Your task to perform on an android device: Open the Play Movies app and select the watchlist tab. Image 0: 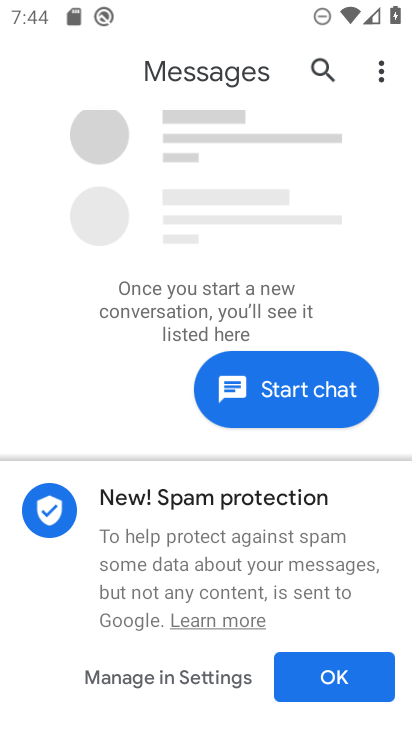
Step 0: press home button
Your task to perform on an android device: Open the Play Movies app and select the watchlist tab. Image 1: 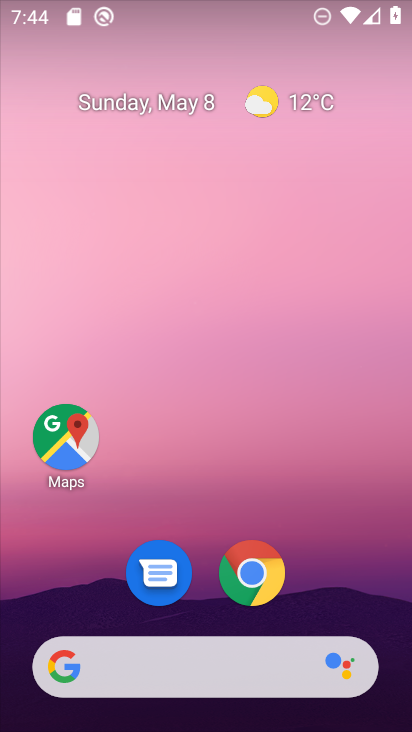
Step 1: drag from (367, 598) to (412, 505)
Your task to perform on an android device: Open the Play Movies app and select the watchlist tab. Image 2: 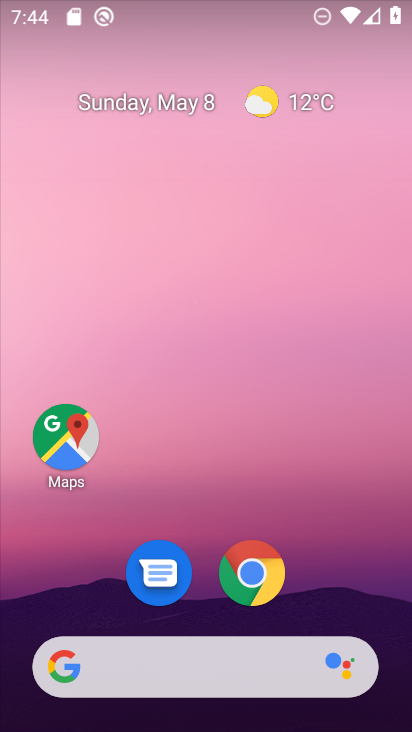
Step 2: drag from (409, 298) to (405, 44)
Your task to perform on an android device: Open the Play Movies app and select the watchlist tab. Image 3: 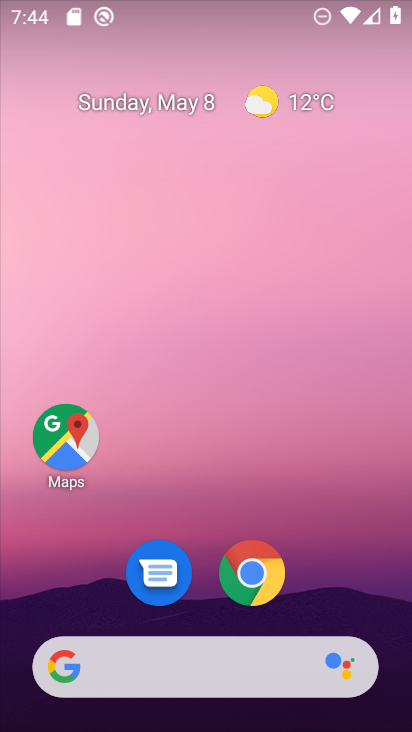
Step 3: drag from (342, 437) to (409, 25)
Your task to perform on an android device: Open the Play Movies app and select the watchlist tab. Image 4: 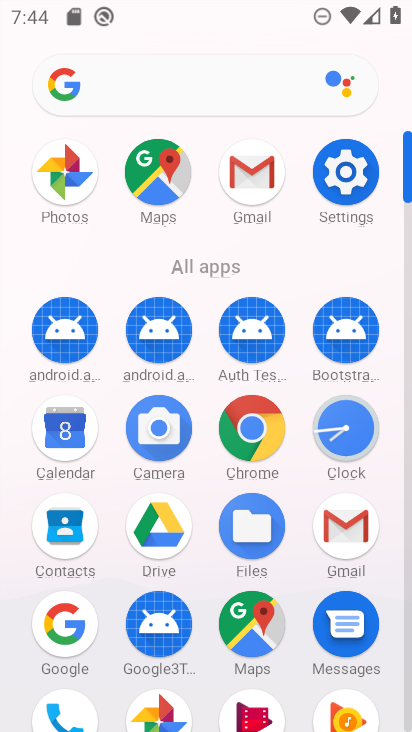
Step 4: click (255, 713)
Your task to perform on an android device: Open the Play Movies app and select the watchlist tab. Image 5: 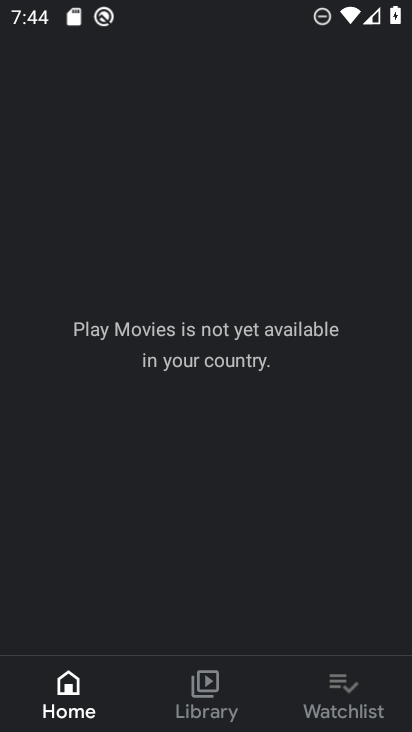
Step 5: click (329, 717)
Your task to perform on an android device: Open the Play Movies app and select the watchlist tab. Image 6: 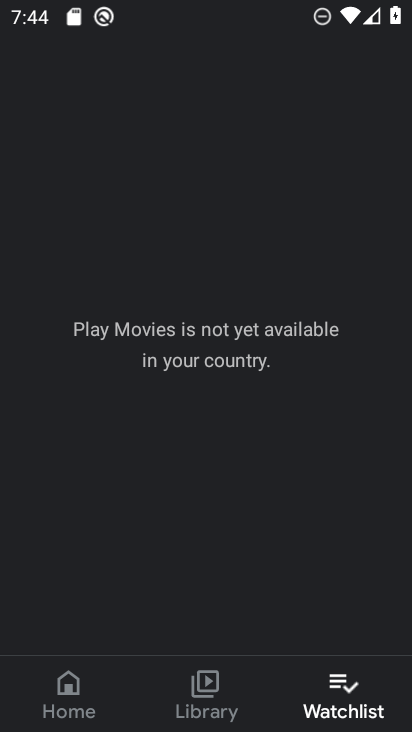
Step 6: task complete